Your task to perform on an android device: open app "Grab" (install if not already installed) Image 0: 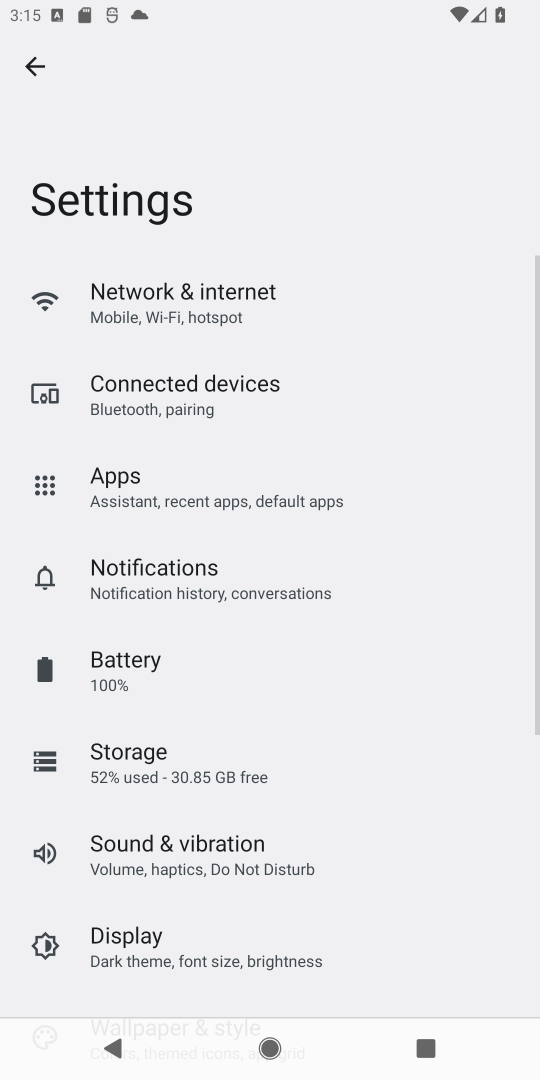
Step 0: press home button
Your task to perform on an android device: open app "Grab" (install if not already installed) Image 1: 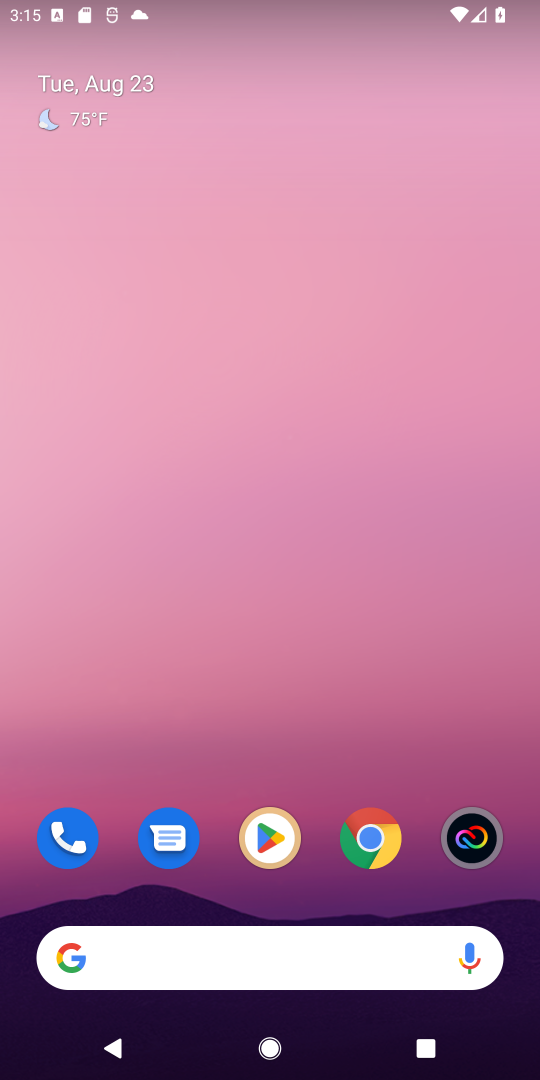
Step 1: click (280, 860)
Your task to perform on an android device: open app "Grab" (install if not already installed) Image 2: 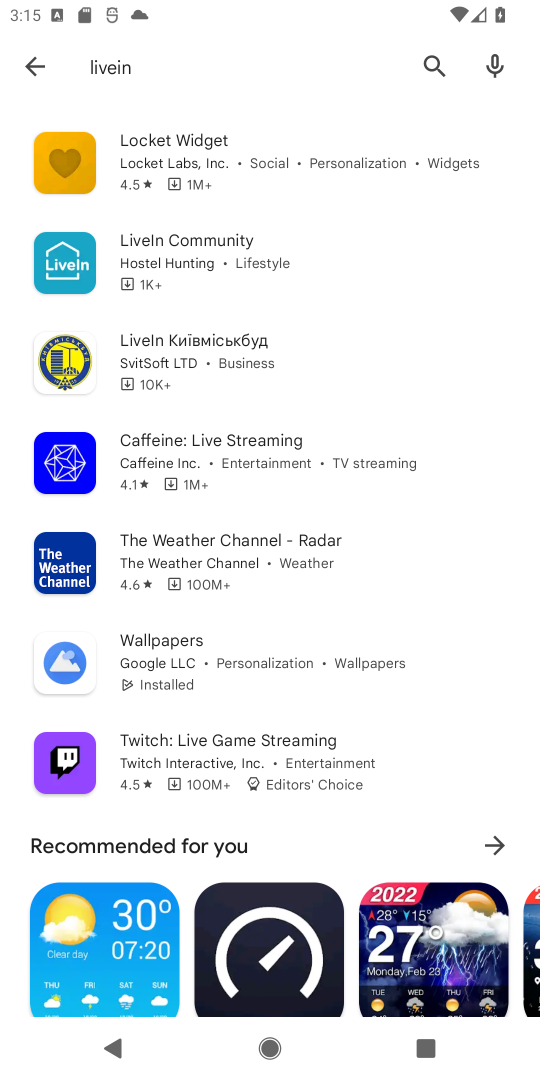
Step 2: click (24, 49)
Your task to perform on an android device: open app "Grab" (install if not already installed) Image 3: 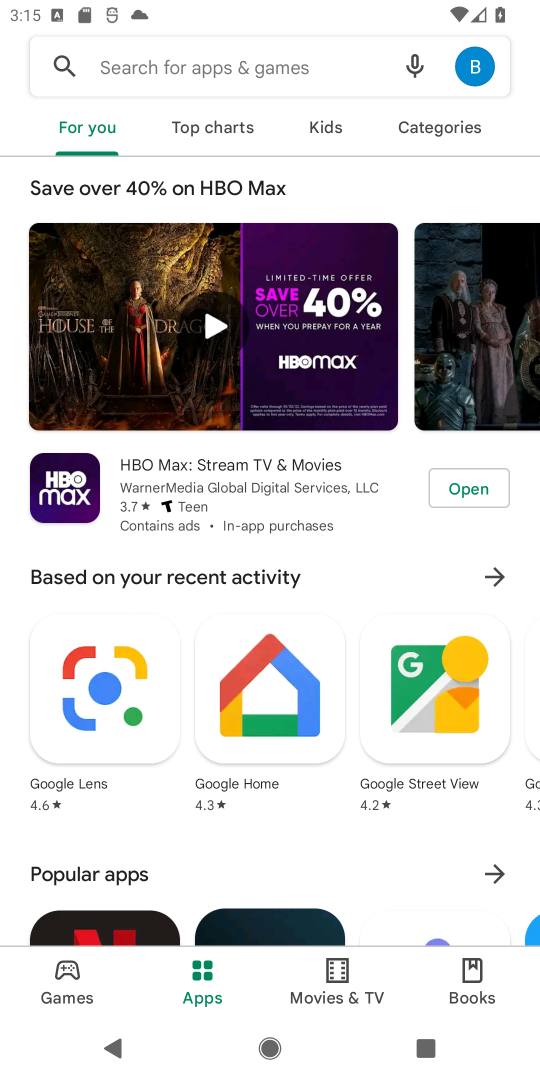
Step 3: click (133, 81)
Your task to perform on an android device: open app "Grab" (install if not already installed) Image 4: 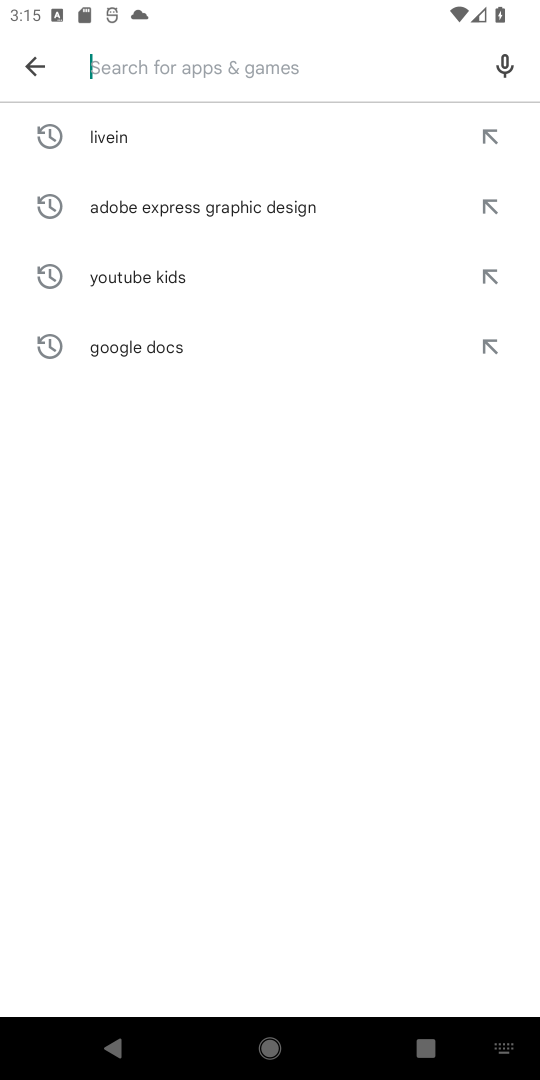
Step 4: type "Grab"
Your task to perform on an android device: open app "Grab" (install if not already installed) Image 5: 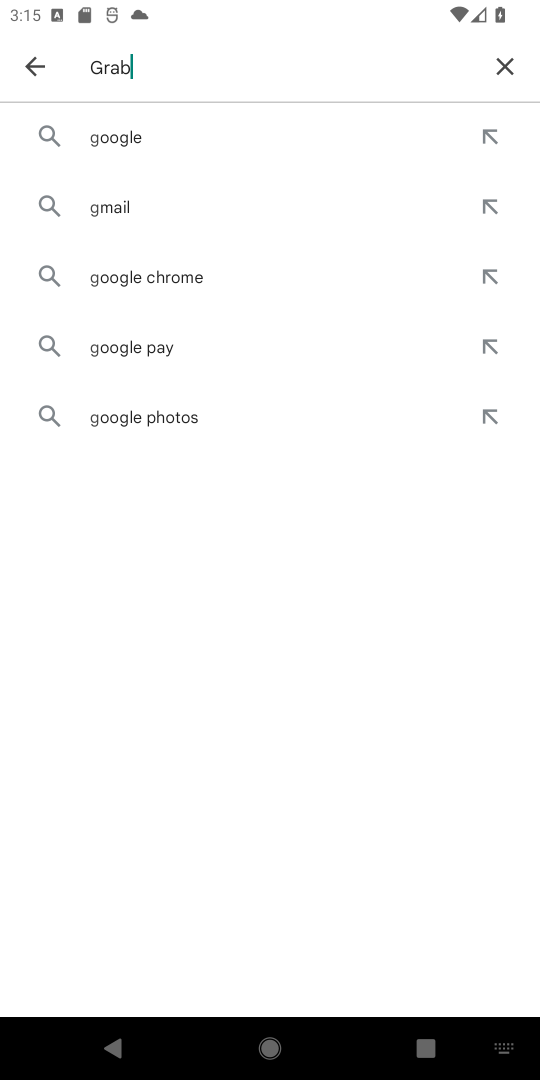
Step 5: type ""
Your task to perform on an android device: open app "Grab" (install if not already installed) Image 6: 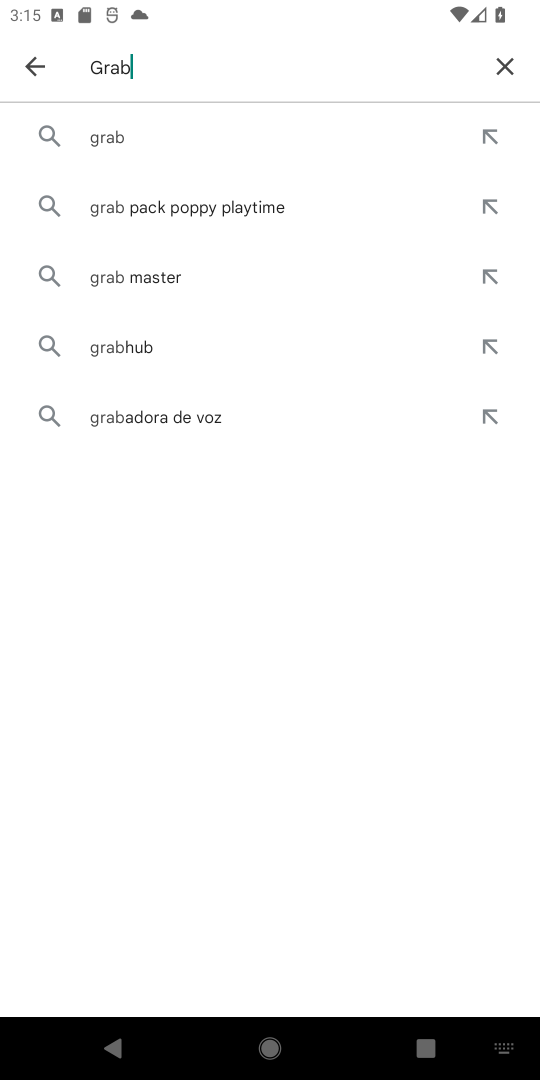
Step 6: click (114, 129)
Your task to perform on an android device: open app "Grab" (install if not already installed) Image 7: 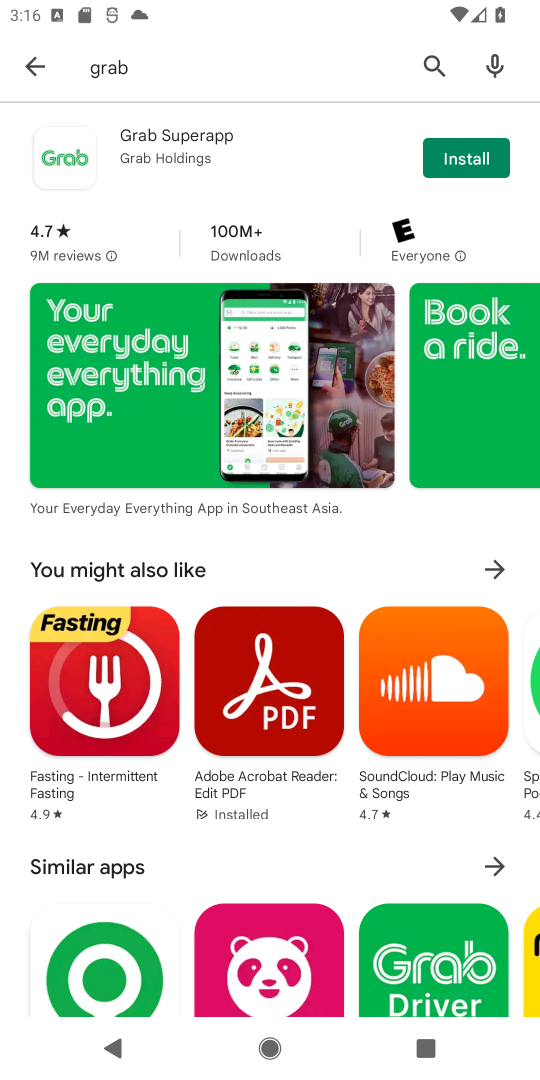
Step 7: click (460, 156)
Your task to perform on an android device: open app "Grab" (install if not already installed) Image 8: 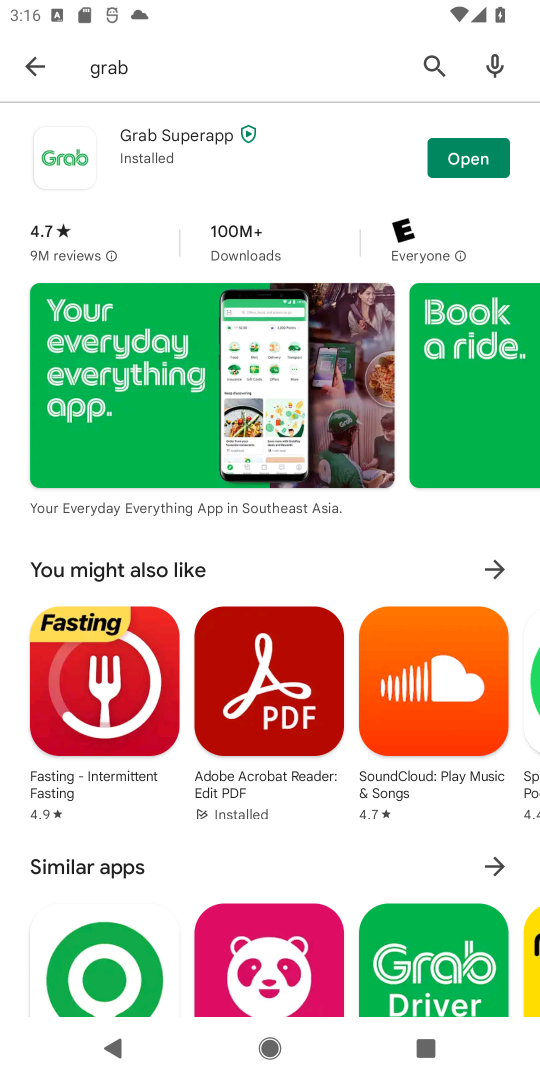
Step 8: click (490, 166)
Your task to perform on an android device: open app "Grab" (install if not already installed) Image 9: 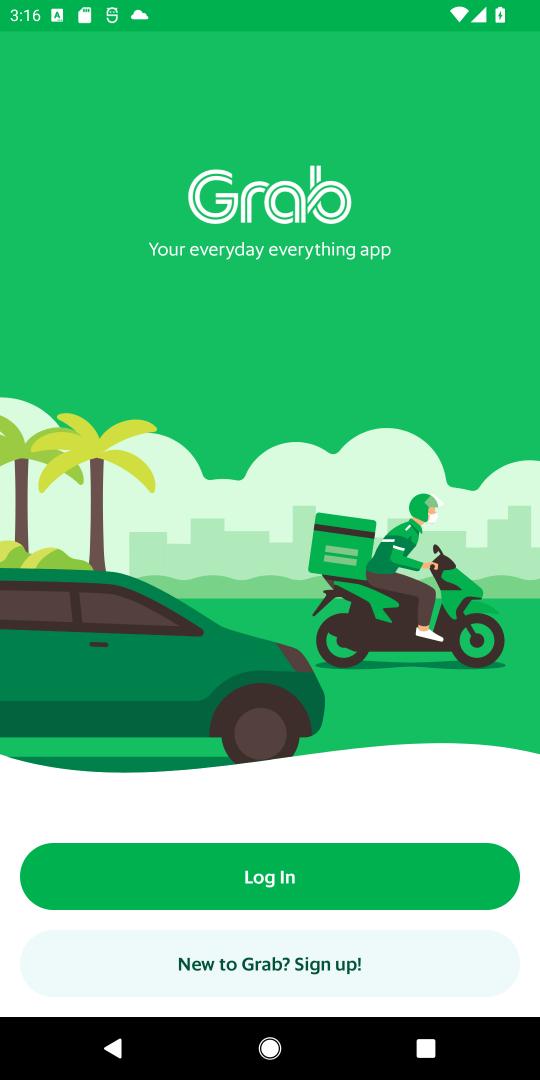
Step 9: task complete